Your task to perform on an android device: toggle improve location accuracy Image 0: 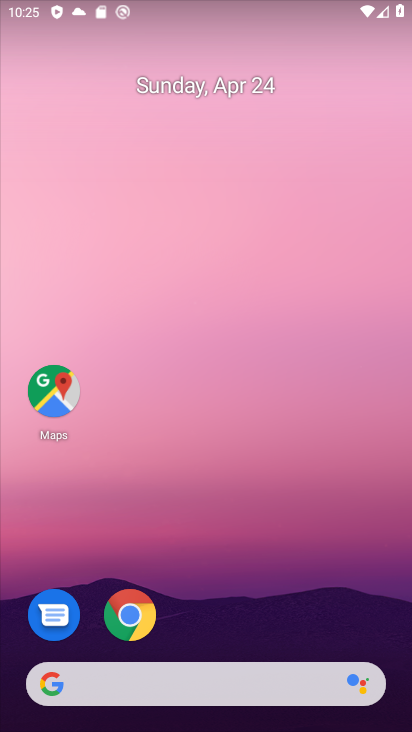
Step 0: drag from (231, 618) to (260, 46)
Your task to perform on an android device: toggle improve location accuracy Image 1: 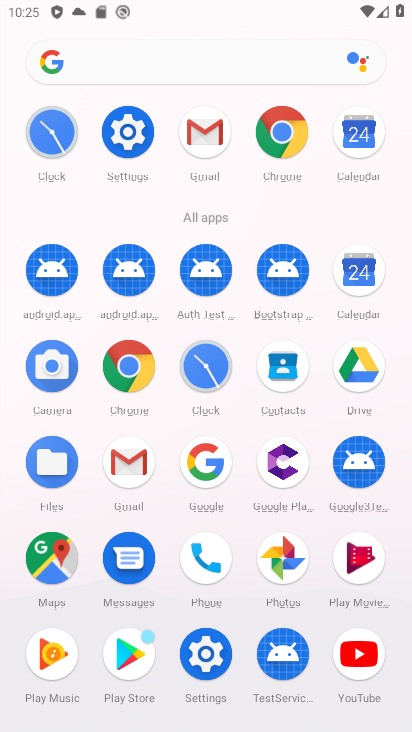
Step 1: click (126, 125)
Your task to perform on an android device: toggle improve location accuracy Image 2: 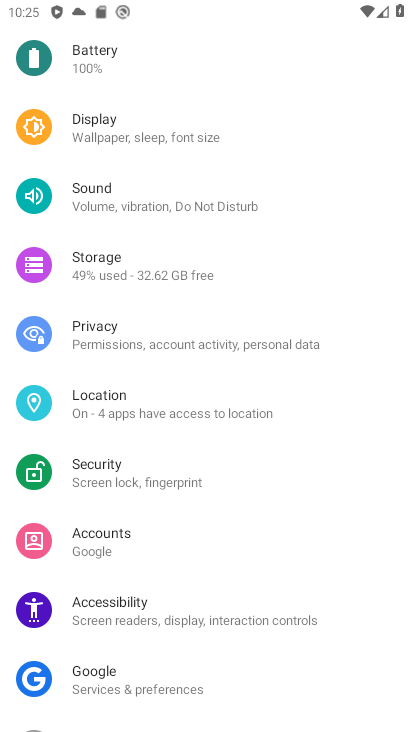
Step 2: click (137, 390)
Your task to perform on an android device: toggle improve location accuracy Image 3: 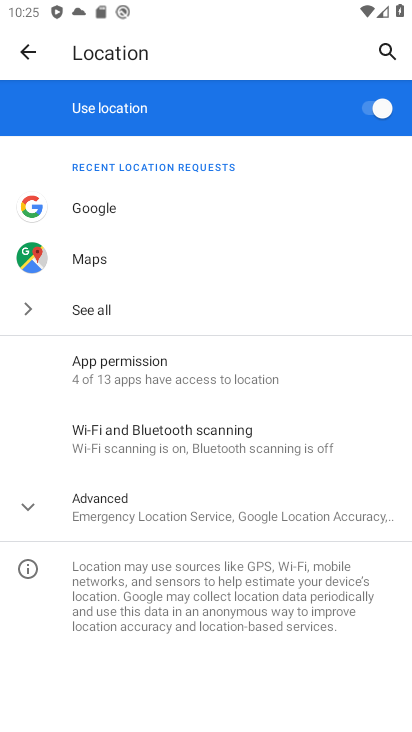
Step 3: click (24, 500)
Your task to perform on an android device: toggle improve location accuracy Image 4: 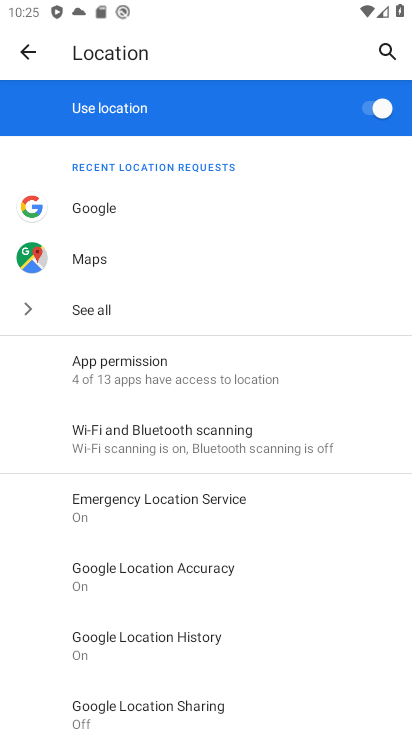
Step 4: click (167, 576)
Your task to perform on an android device: toggle improve location accuracy Image 5: 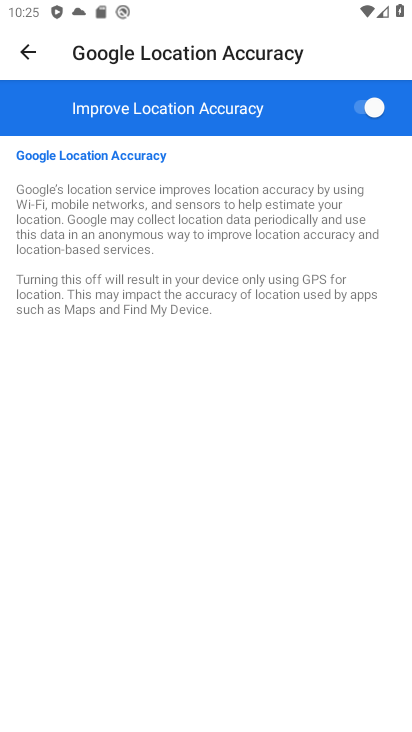
Step 5: task complete